Your task to perform on an android device: turn on notifications settings in the gmail app Image 0: 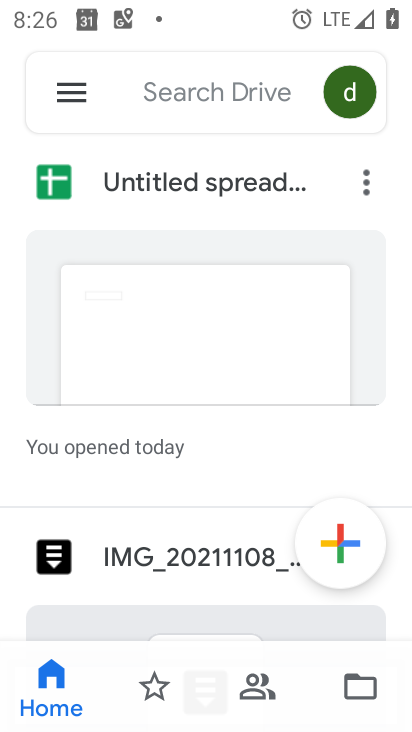
Step 0: press home button
Your task to perform on an android device: turn on notifications settings in the gmail app Image 1: 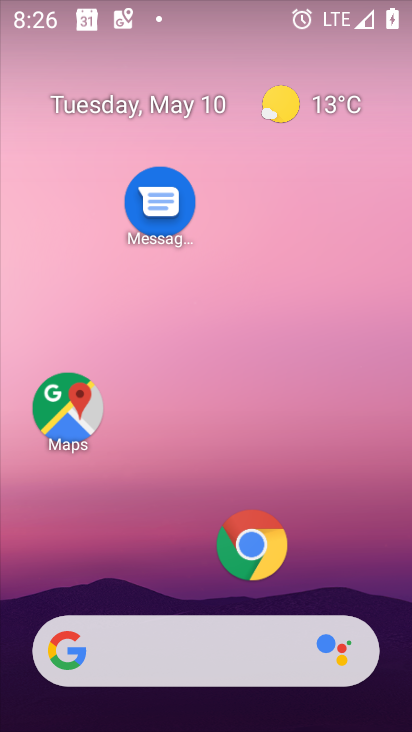
Step 1: drag from (192, 591) to (239, 94)
Your task to perform on an android device: turn on notifications settings in the gmail app Image 2: 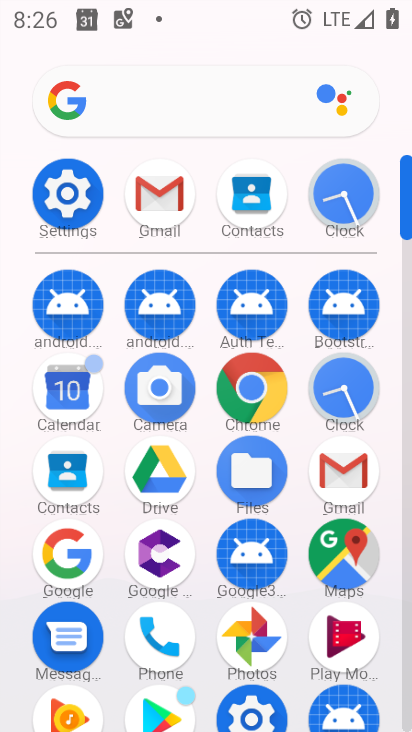
Step 2: click (159, 192)
Your task to perform on an android device: turn on notifications settings in the gmail app Image 3: 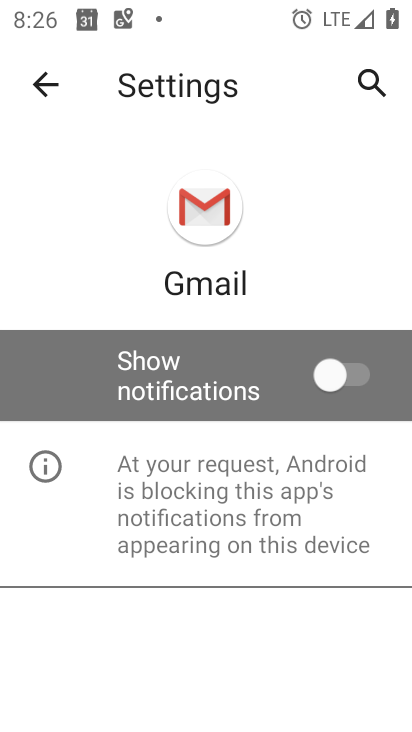
Step 3: click (348, 383)
Your task to perform on an android device: turn on notifications settings in the gmail app Image 4: 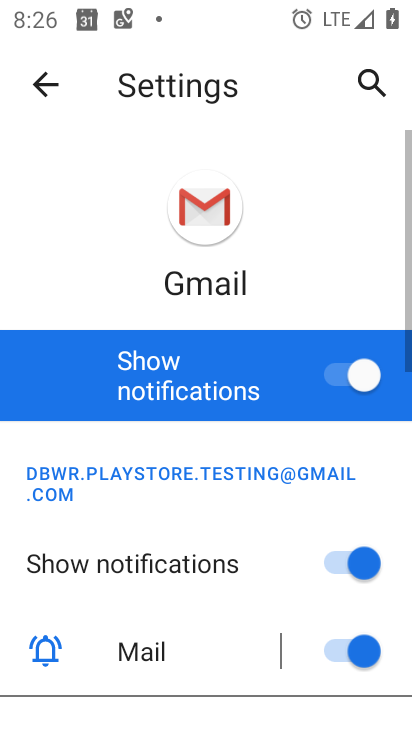
Step 4: task complete